Your task to perform on an android device: Show me recent news Image 0: 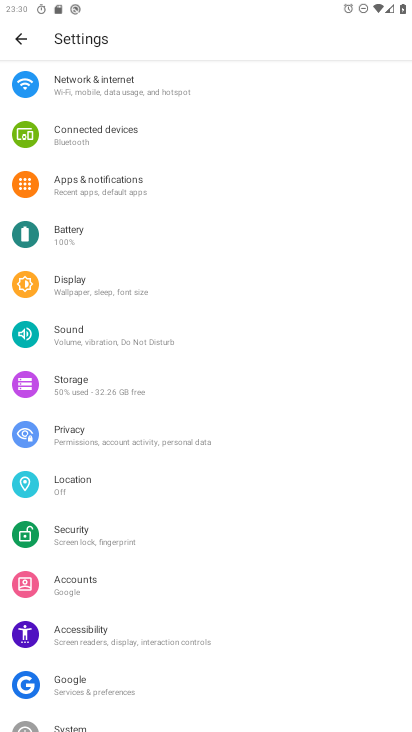
Step 0: press home button
Your task to perform on an android device: Show me recent news Image 1: 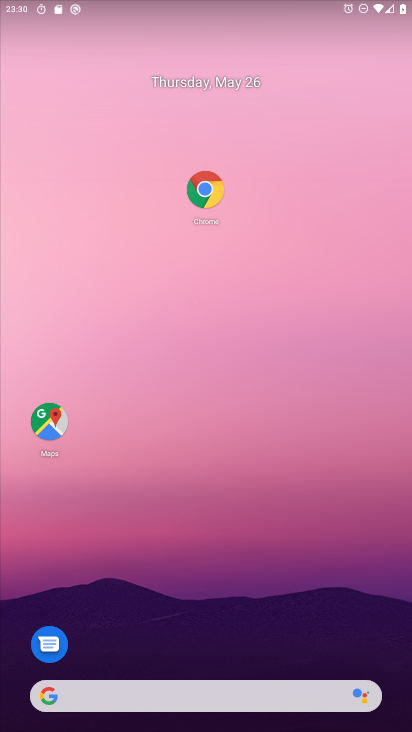
Step 1: drag from (217, 624) to (382, 31)
Your task to perform on an android device: Show me recent news Image 2: 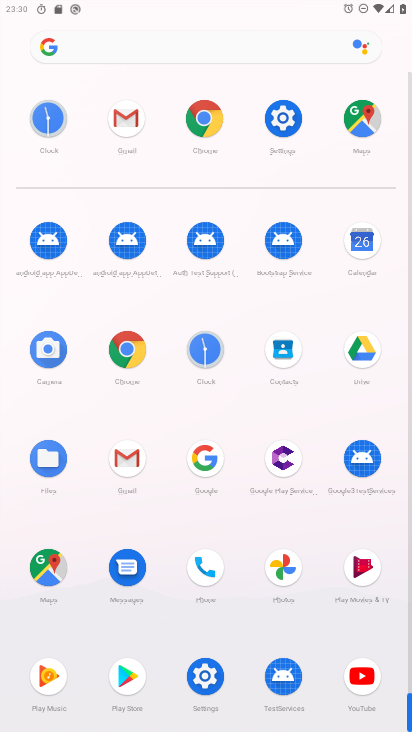
Step 2: click (177, 51)
Your task to perform on an android device: Show me recent news Image 3: 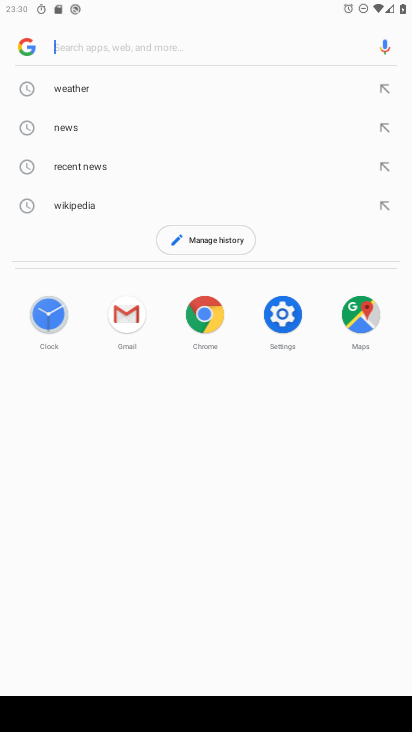
Step 3: click (100, 162)
Your task to perform on an android device: Show me recent news Image 4: 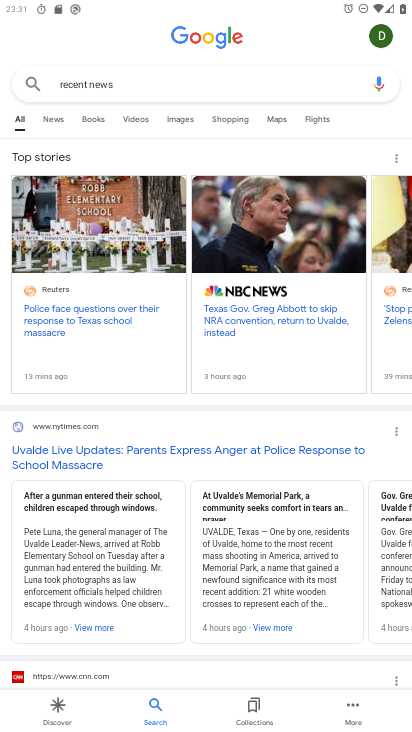
Step 4: task complete